Your task to perform on an android device: see tabs open on other devices in the chrome app Image 0: 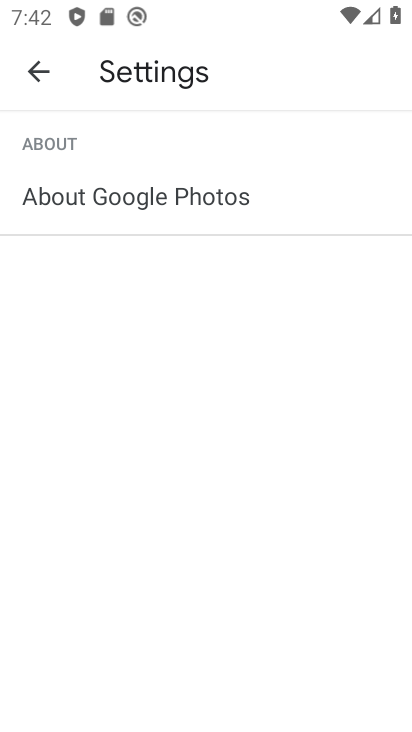
Step 0: press home button
Your task to perform on an android device: see tabs open on other devices in the chrome app Image 1: 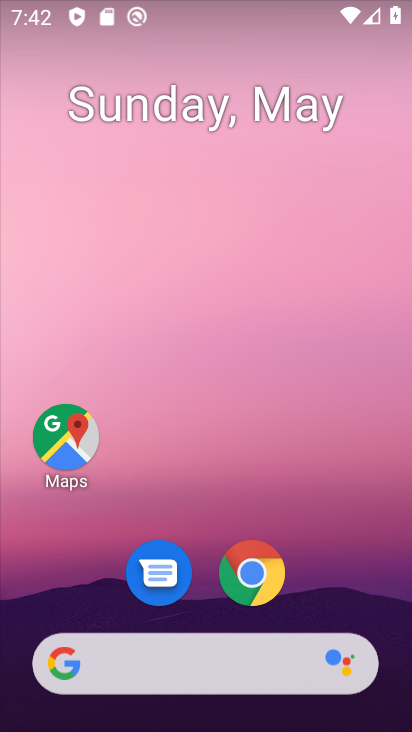
Step 1: click (250, 582)
Your task to perform on an android device: see tabs open on other devices in the chrome app Image 2: 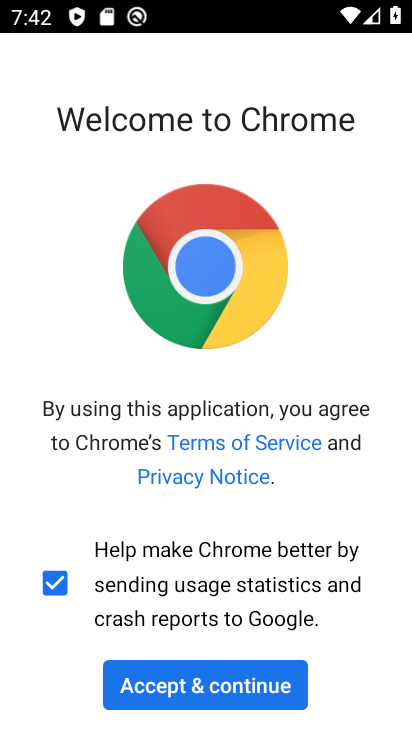
Step 2: click (268, 697)
Your task to perform on an android device: see tabs open on other devices in the chrome app Image 3: 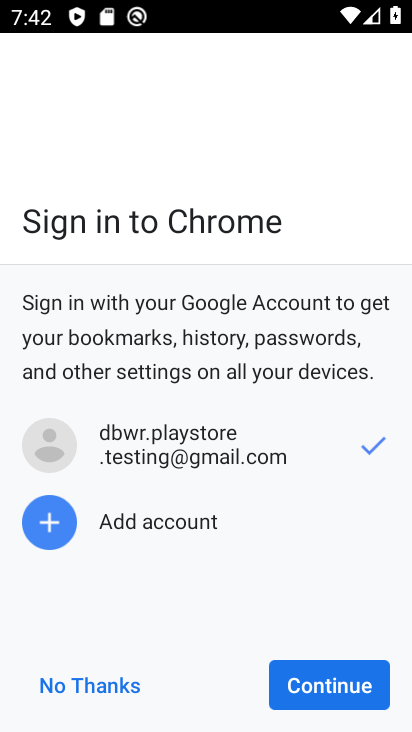
Step 3: click (286, 692)
Your task to perform on an android device: see tabs open on other devices in the chrome app Image 4: 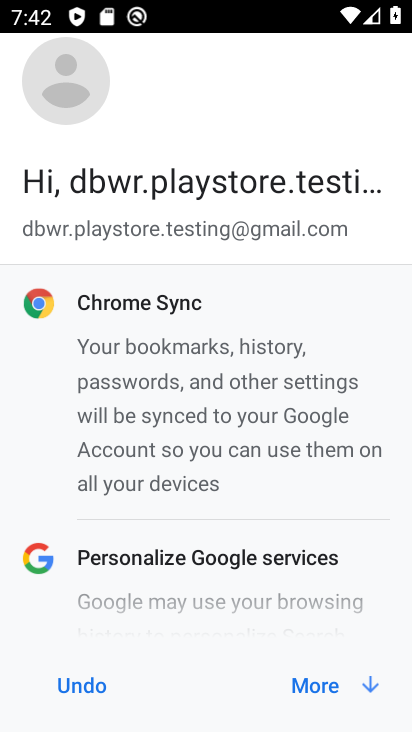
Step 4: click (286, 692)
Your task to perform on an android device: see tabs open on other devices in the chrome app Image 5: 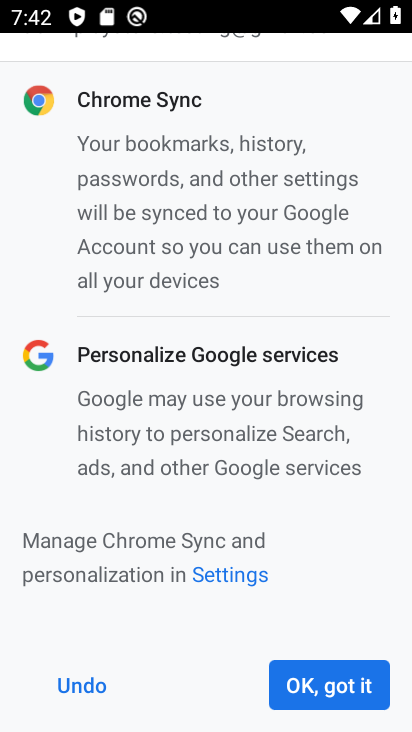
Step 5: click (286, 692)
Your task to perform on an android device: see tabs open on other devices in the chrome app Image 6: 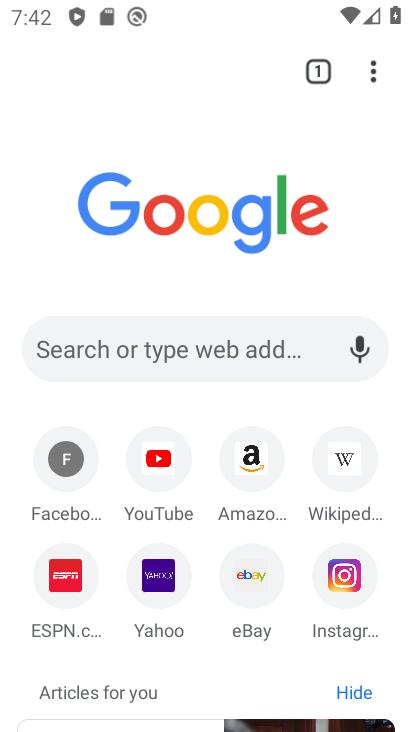
Step 6: task complete